Your task to perform on an android device: toggle improve location accuracy Image 0: 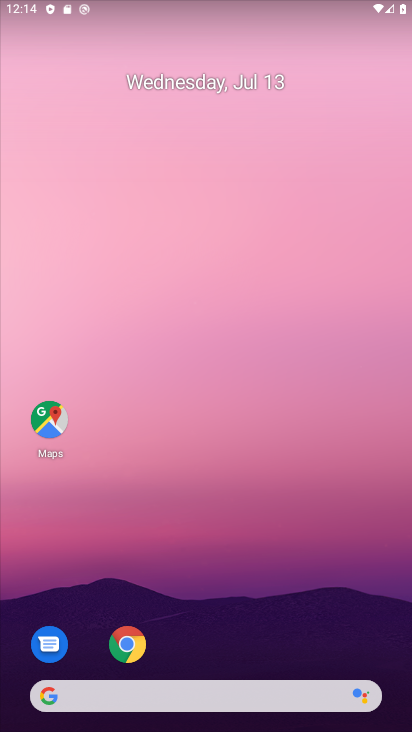
Step 0: drag from (337, 684) to (254, 134)
Your task to perform on an android device: toggle improve location accuracy Image 1: 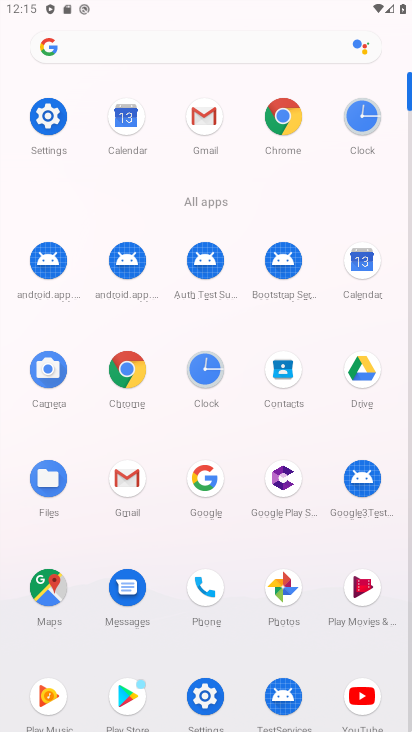
Step 1: click (53, 116)
Your task to perform on an android device: toggle improve location accuracy Image 2: 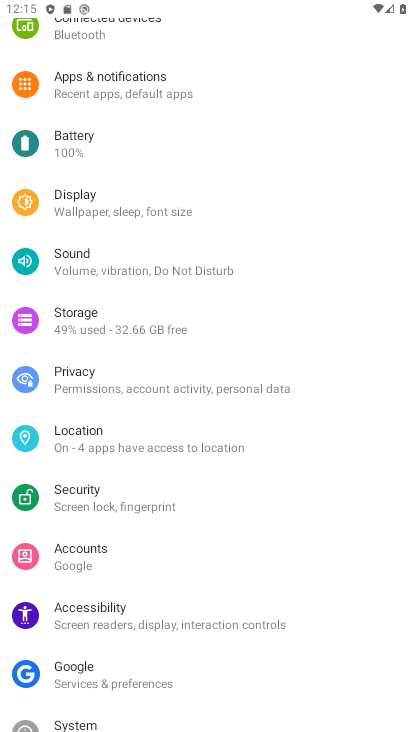
Step 2: click (125, 431)
Your task to perform on an android device: toggle improve location accuracy Image 3: 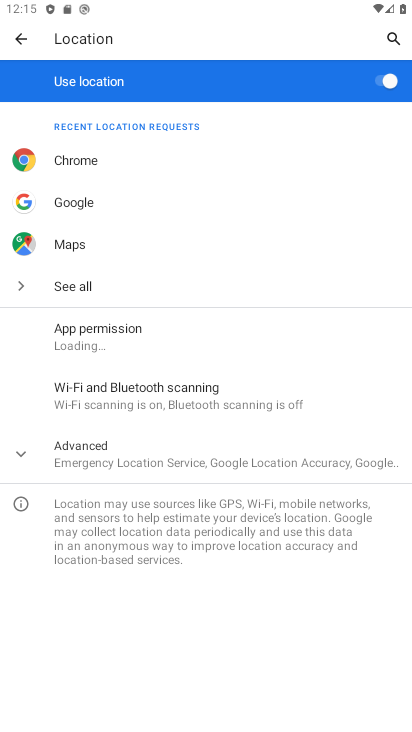
Step 3: click (114, 454)
Your task to perform on an android device: toggle improve location accuracy Image 4: 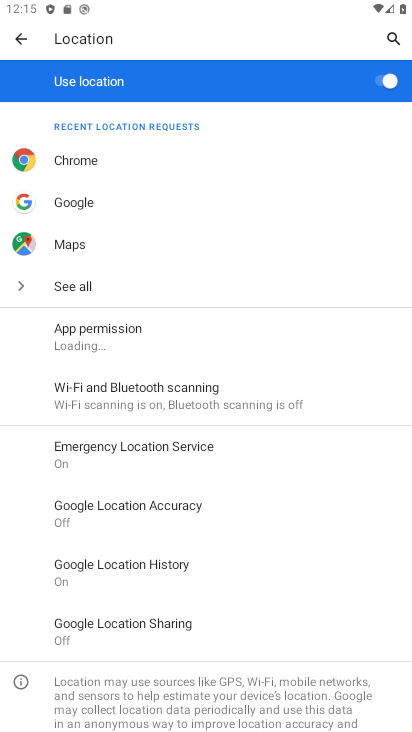
Step 4: click (149, 503)
Your task to perform on an android device: toggle improve location accuracy Image 5: 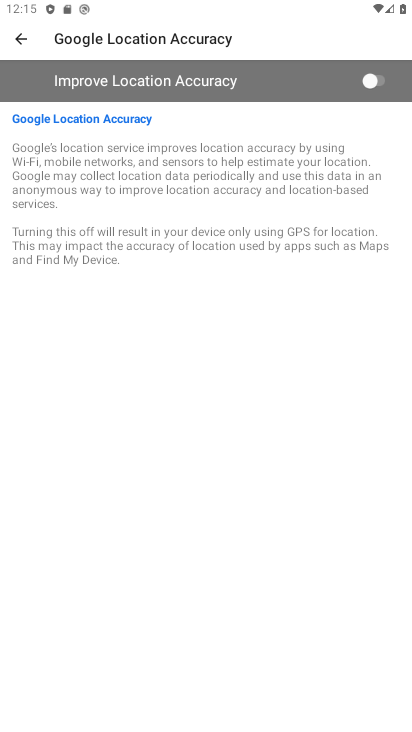
Step 5: click (374, 79)
Your task to perform on an android device: toggle improve location accuracy Image 6: 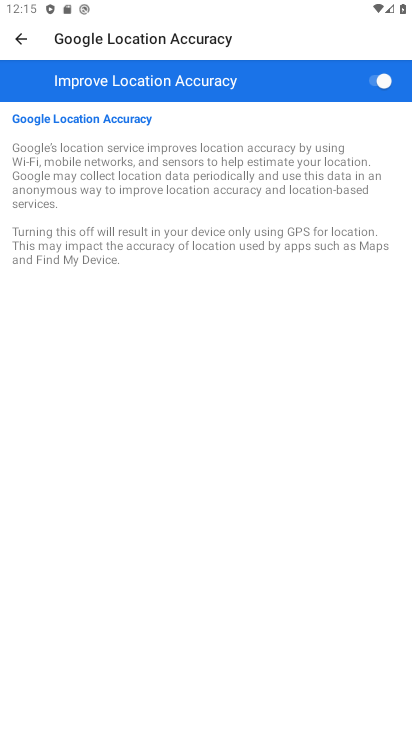
Step 6: task complete